Your task to perform on an android device: Open calendar and show me the third week of next month Image 0: 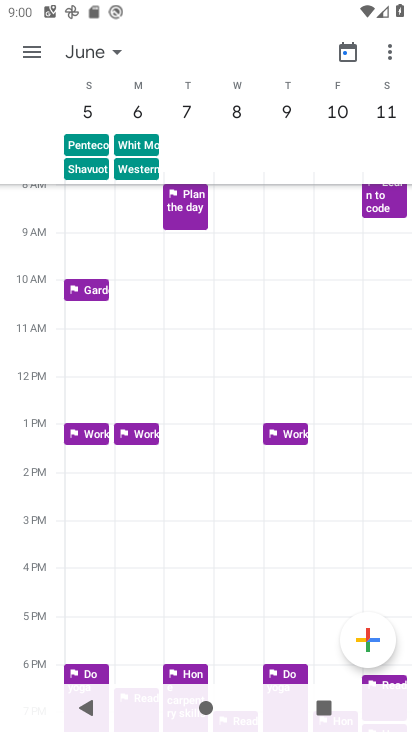
Step 0: drag from (367, 356) to (0, 282)
Your task to perform on an android device: Open calendar and show me the third week of next month Image 1: 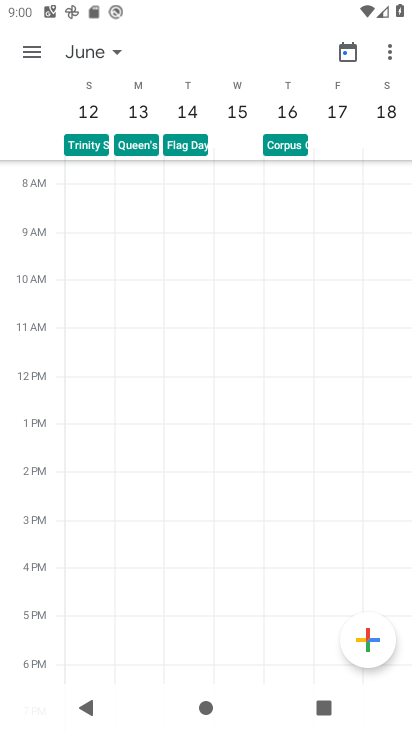
Step 1: task complete